Your task to perform on an android device: What's on my calendar today? Image 0: 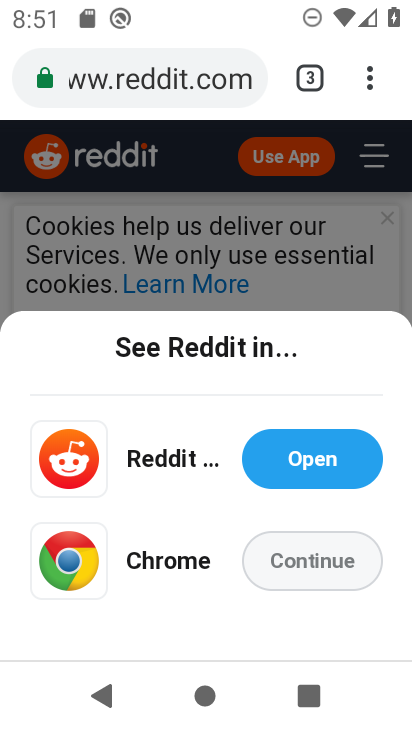
Step 0: press home button
Your task to perform on an android device: What's on my calendar today? Image 1: 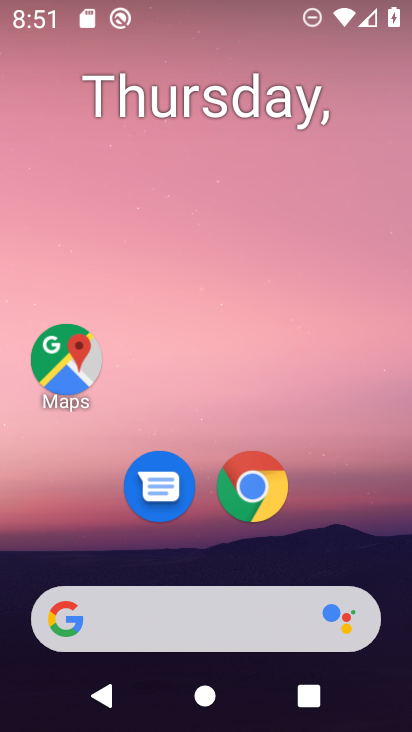
Step 1: drag from (109, 522) to (289, 2)
Your task to perform on an android device: What's on my calendar today? Image 2: 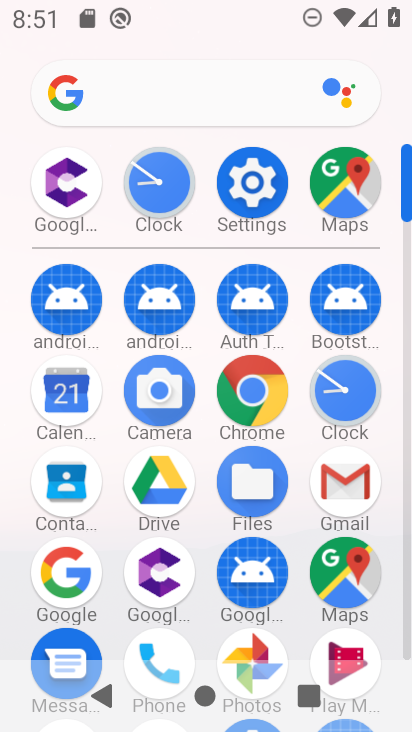
Step 2: click (69, 402)
Your task to perform on an android device: What's on my calendar today? Image 3: 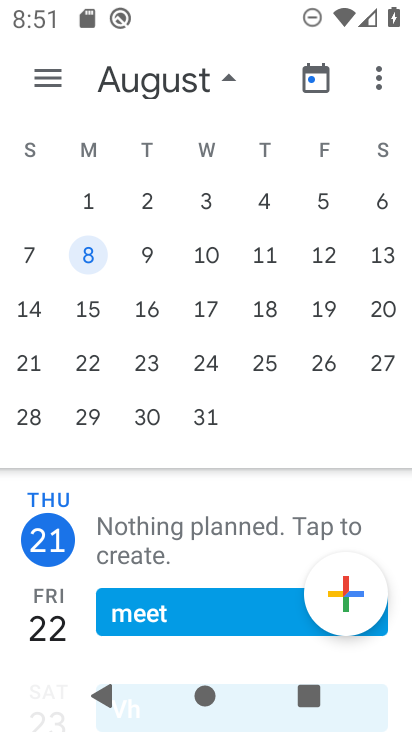
Step 3: task complete